Your task to perform on an android device: Open calendar and show me the second week of next month Image 0: 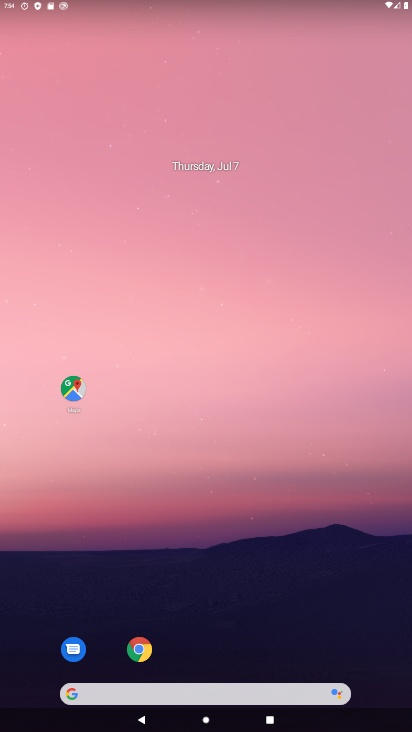
Step 0: drag from (204, 659) to (231, 10)
Your task to perform on an android device: Open calendar and show me the second week of next month Image 1: 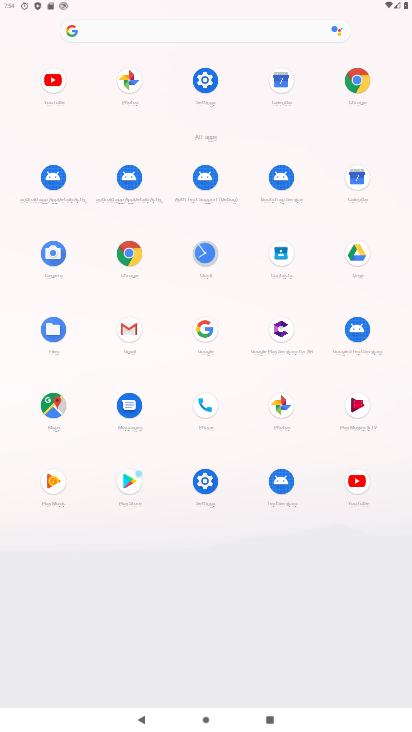
Step 1: click (354, 173)
Your task to perform on an android device: Open calendar and show me the second week of next month Image 2: 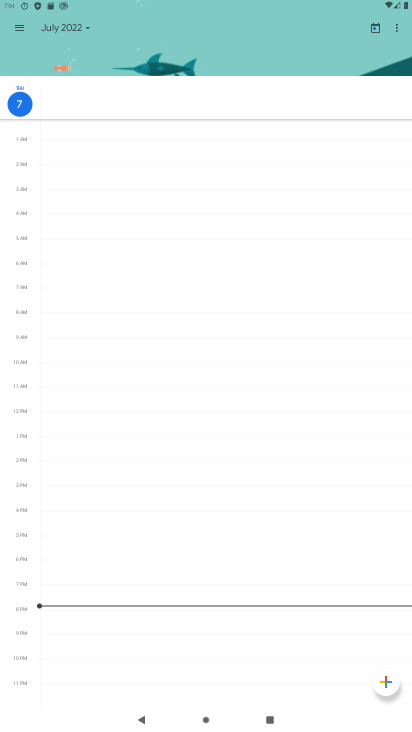
Step 2: click (83, 26)
Your task to perform on an android device: Open calendar and show me the second week of next month Image 3: 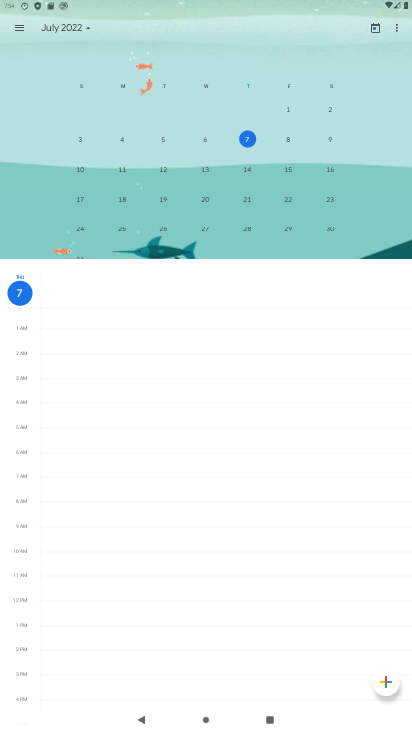
Step 3: drag from (337, 160) to (0, 165)
Your task to perform on an android device: Open calendar and show me the second week of next month Image 4: 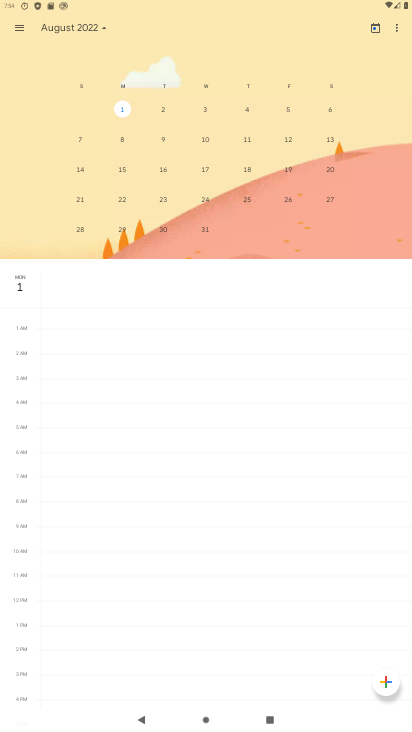
Step 4: click (82, 136)
Your task to perform on an android device: Open calendar and show me the second week of next month Image 5: 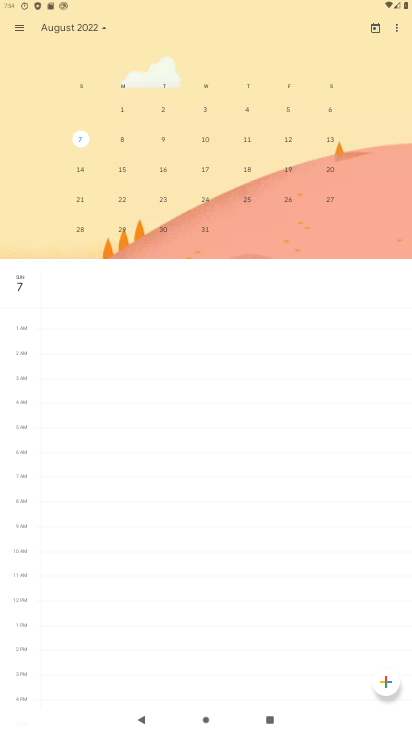
Step 5: click (22, 24)
Your task to perform on an android device: Open calendar and show me the second week of next month Image 6: 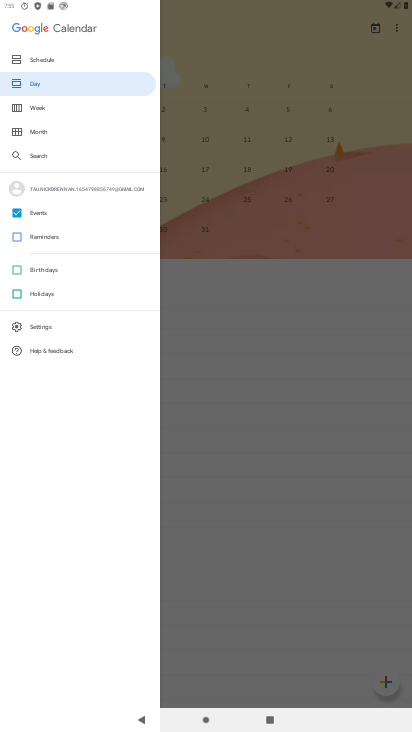
Step 6: click (38, 107)
Your task to perform on an android device: Open calendar and show me the second week of next month Image 7: 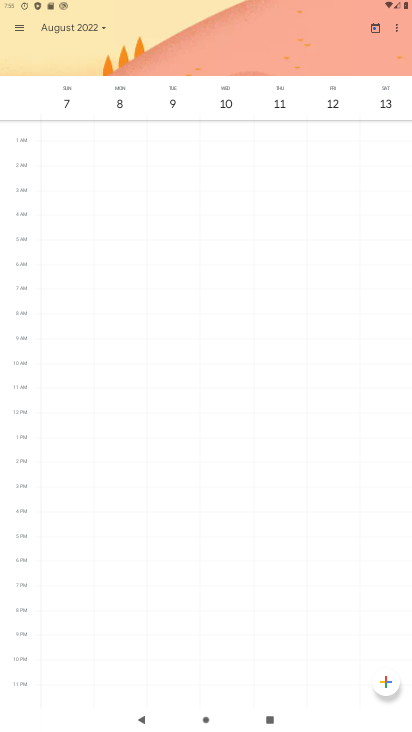
Step 7: task complete